Your task to perform on an android device: open app "Firefox Browser" (install if not already installed) Image 0: 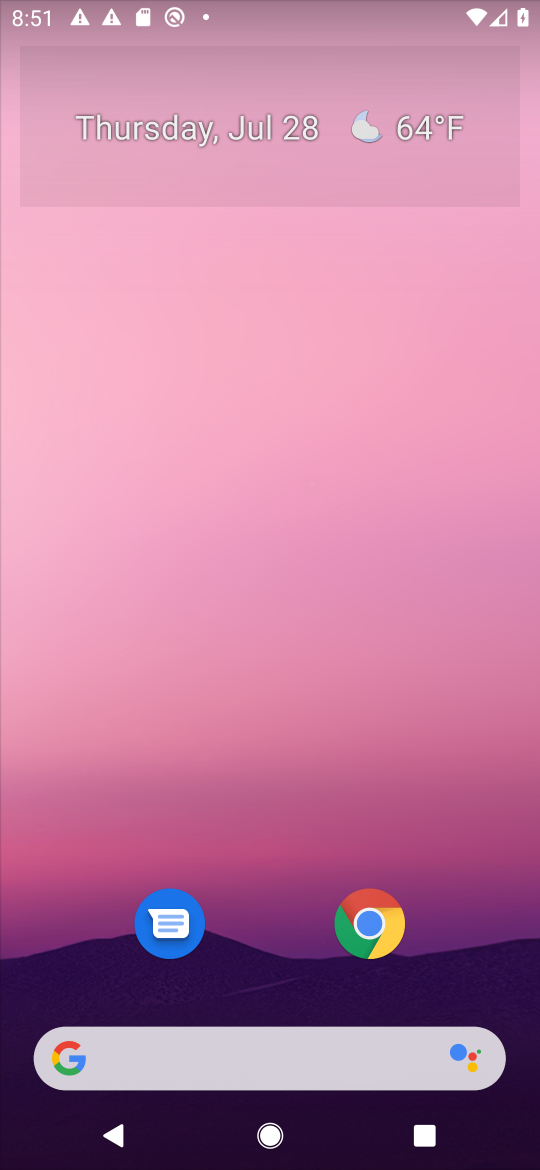
Step 0: drag from (385, 743) to (384, 63)
Your task to perform on an android device: open app "Firefox Browser" (install if not already installed) Image 1: 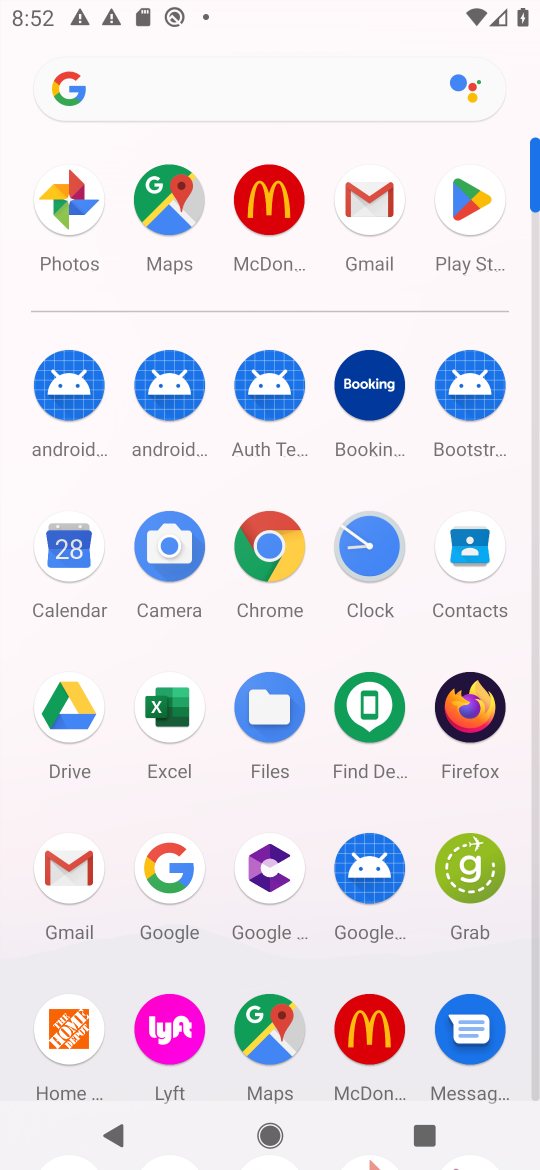
Step 1: click (484, 197)
Your task to perform on an android device: open app "Firefox Browser" (install if not already installed) Image 2: 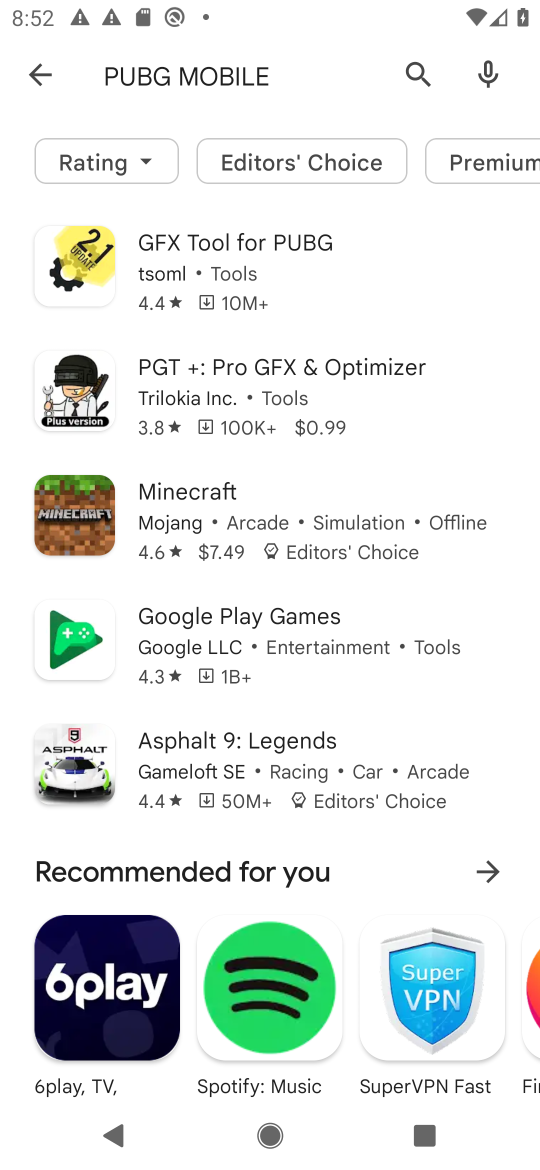
Step 2: click (338, 66)
Your task to perform on an android device: open app "Firefox Browser" (install if not already installed) Image 3: 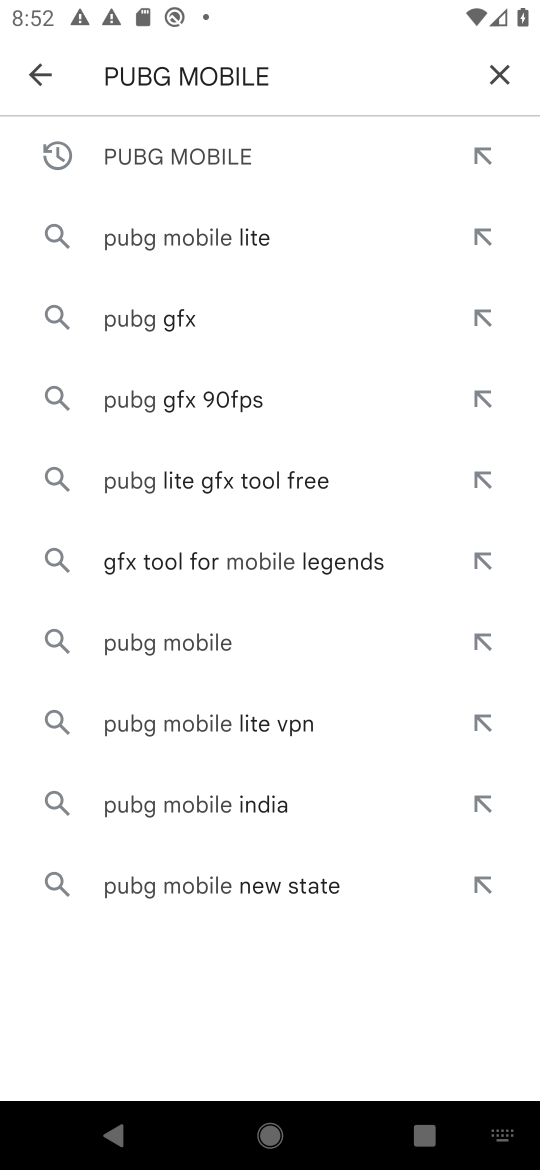
Step 3: click (500, 70)
Your task to perform on an android device: open app "Firefox Browser" (install if not already installed) Image 4: 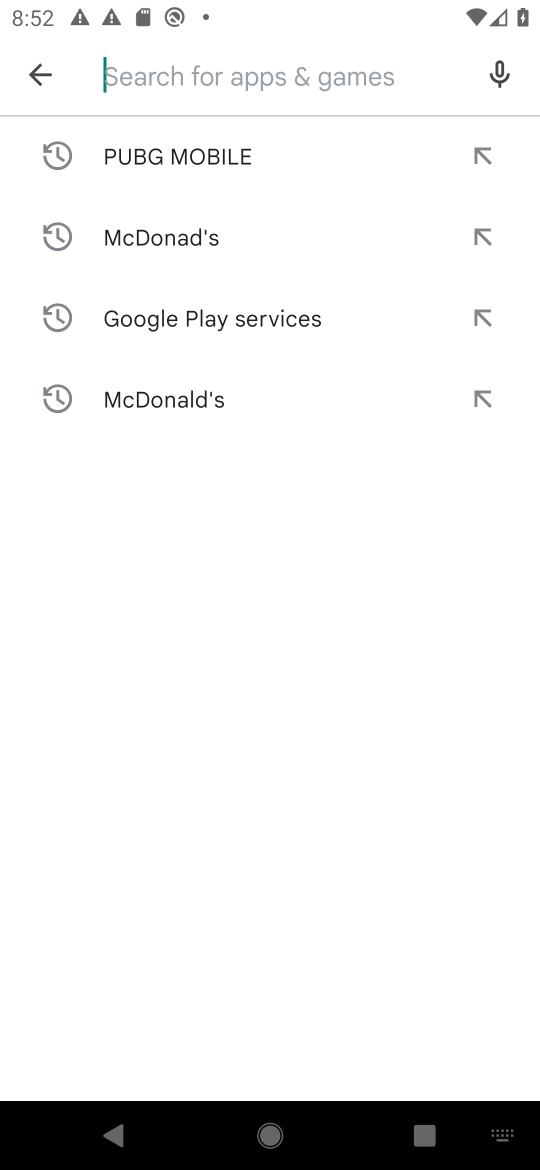
Step 4: type "Firefox Browser"
Your task to perform on an android device: open app "Firefox Browser" (install if not already installed) Image 5: 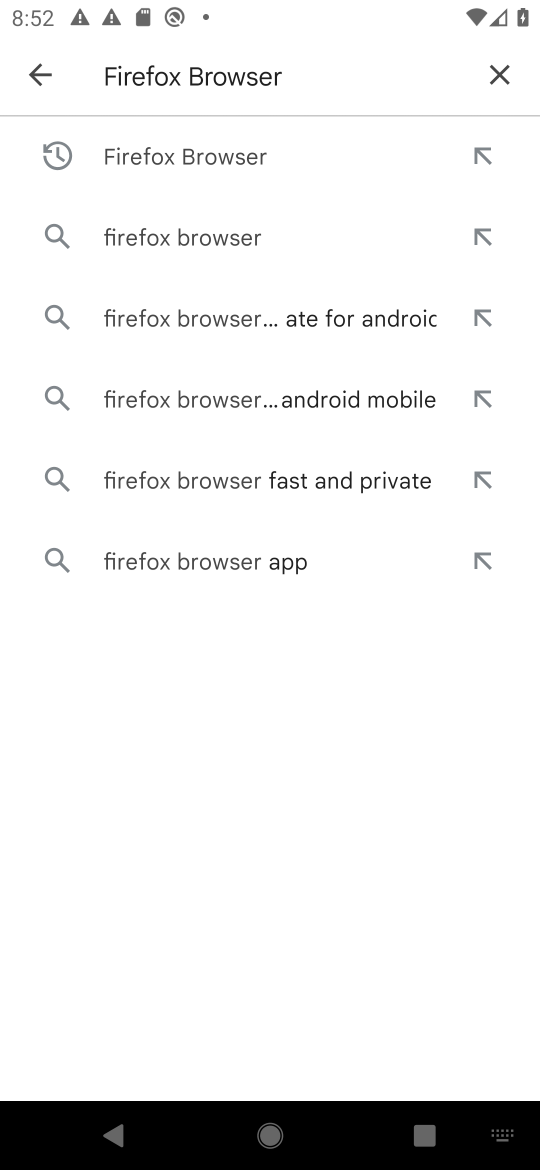
Step 5: press enter
Your task to perform on an android device: open app "Firefox Browser" (install if not already installed) Image 6: 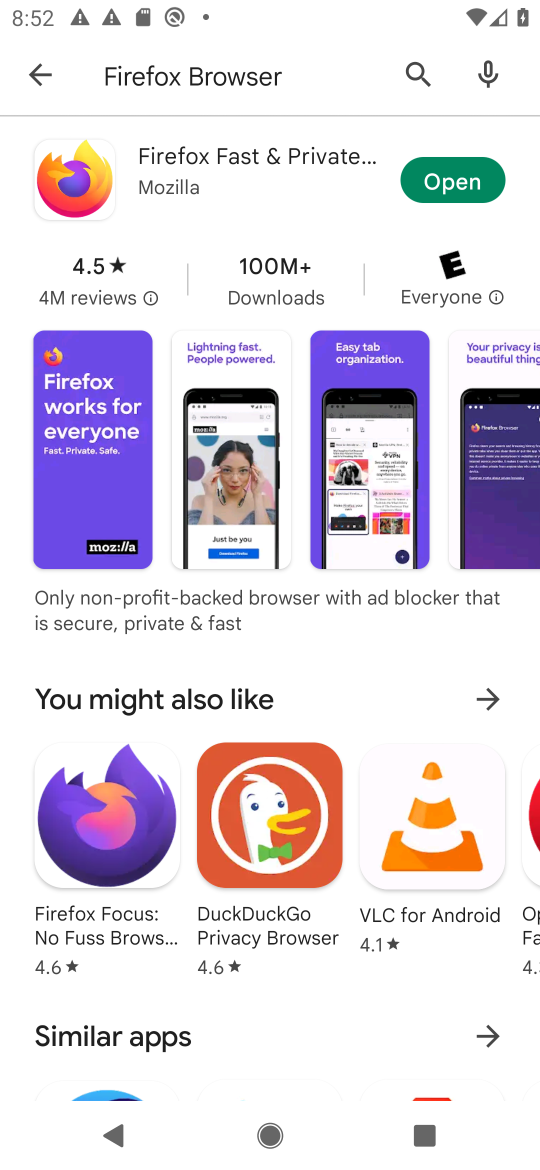
Step 6: click (472, 186)
Your task to perform on an android device: open app "Firefox Browser" (install if not already installed) Image 7: 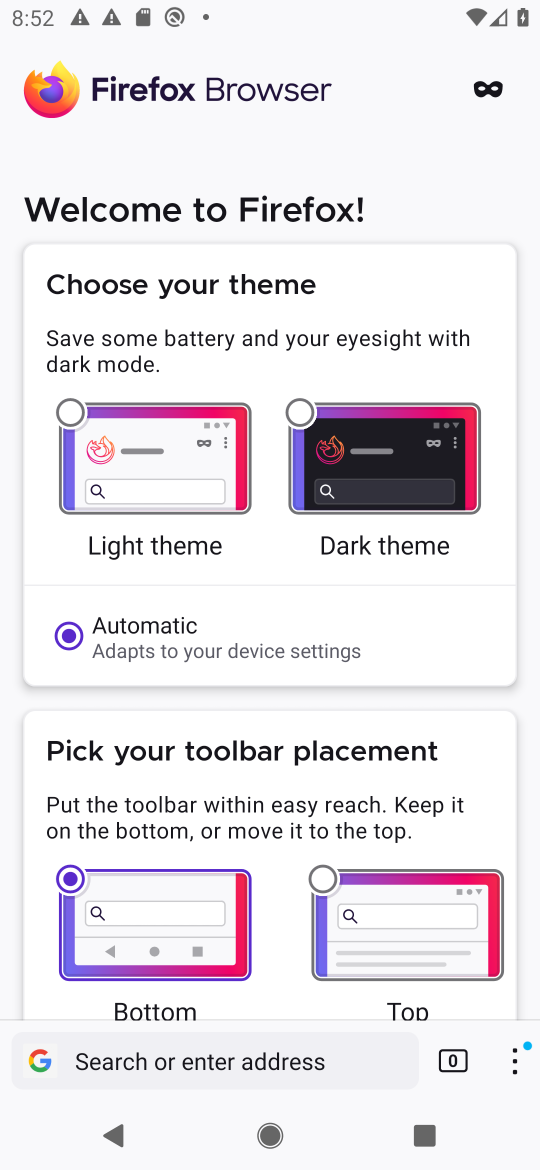
Step 7: task complete